Your task to perform on an android device: Open Google Maps and go to "Timeline" Image 0: 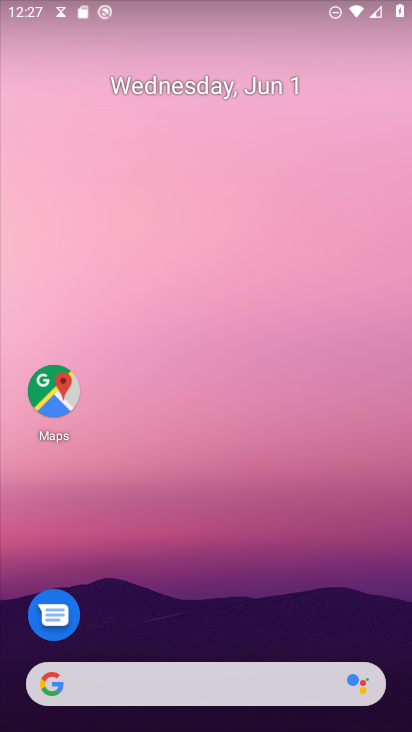
Step 0: drag from (259, 617) to (295, 16)
Your task to perform on an android device: Open Google Maps and go to "Timeline" Image 1: 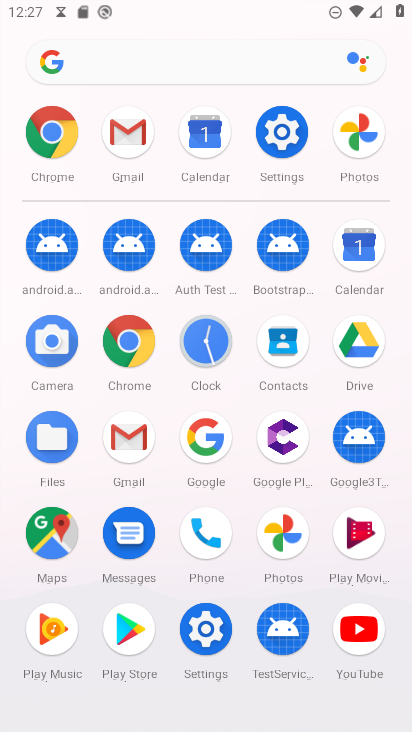
Step 1: click (60, 538)
Your task to perform on an android device: Open Google Maps and go to "Timeline" Image 2: 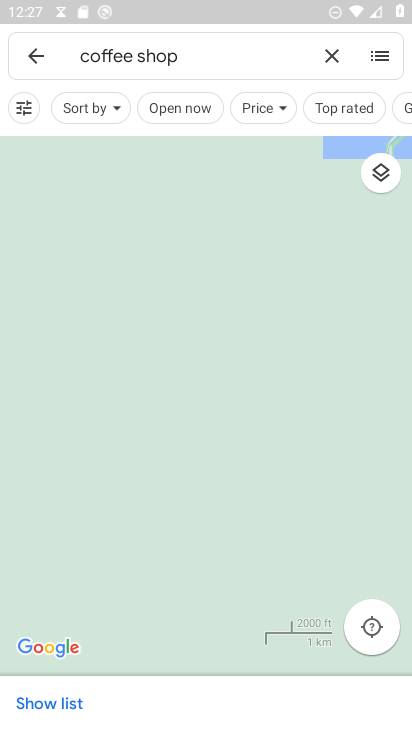
Step 2: click (385, 60)
Your task to perform on an android device: Open Google Maps and go to "Timeline" Image 3: 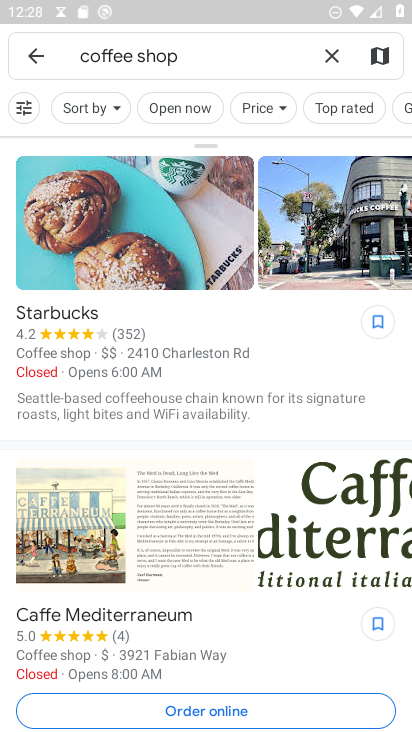
Step 3: click (339, 56)
Your task to perform on an android device: Open Google Maps and go to "Timeline" Image 4: 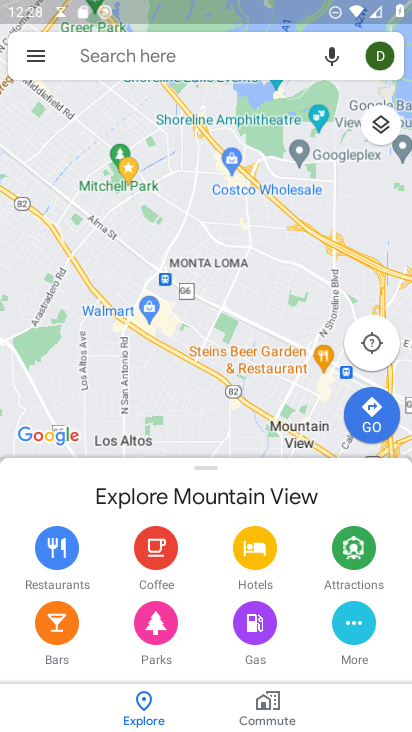
Step 4: click (36, 53)
Your task to perform on an android device: Open Google Maps and go to "Timeline" Image 5: 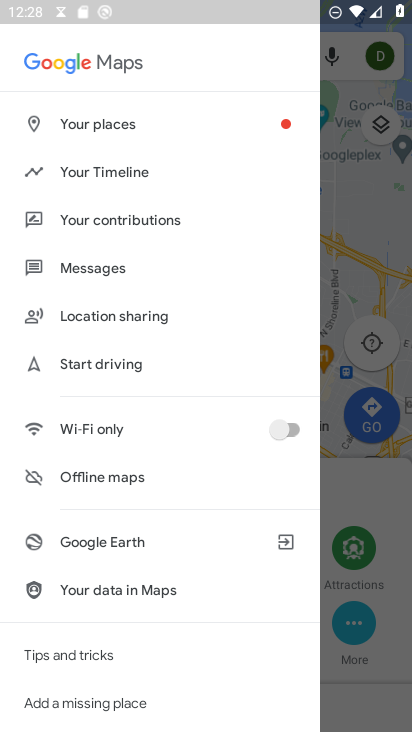
Step 5: click (120, 171)
Your task to perform on an android device: Open Google Maps and go to "Timeline" Image 6: 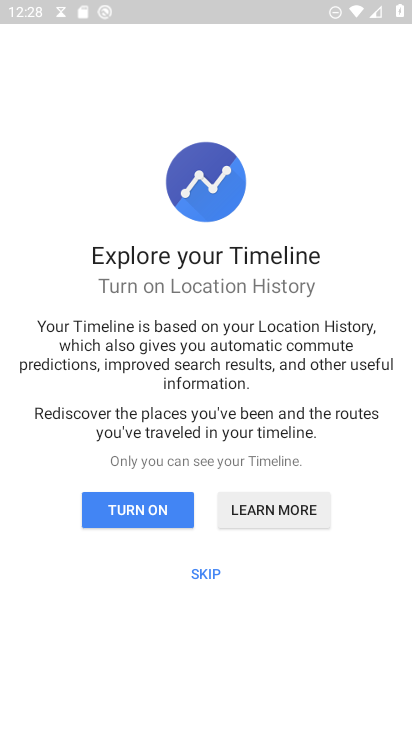
Step 6: click (199, 572)
Your task to perform on an android device: Open Google Maps and go to "Timeline" Image 7: 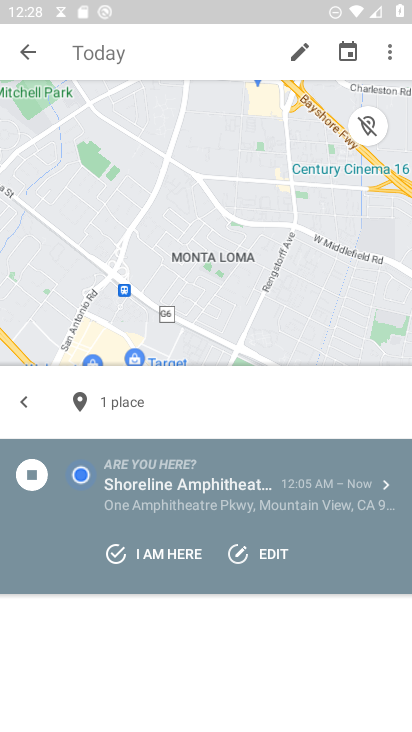
Step 7: click (33, 47)
Your task to perform on an android device: Open Google Maps and go to "Timeline" Image 8: 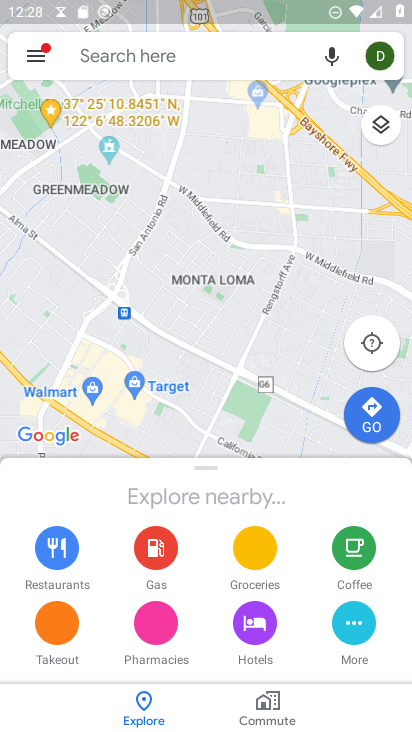
Step 8: click (34, 47)
Your task to perform on an android device: Open Google Maps and go to "Timeline" Image 9: 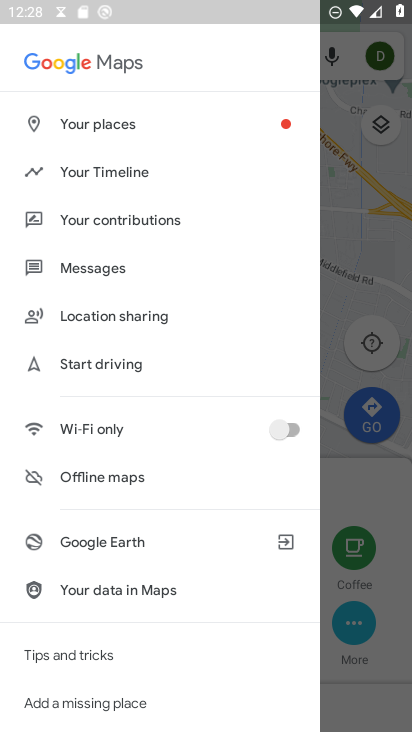
Step 9: click (133, 172)
Your task to perform on an android device: Open Google Maps and go to "Timeline" Image 10: 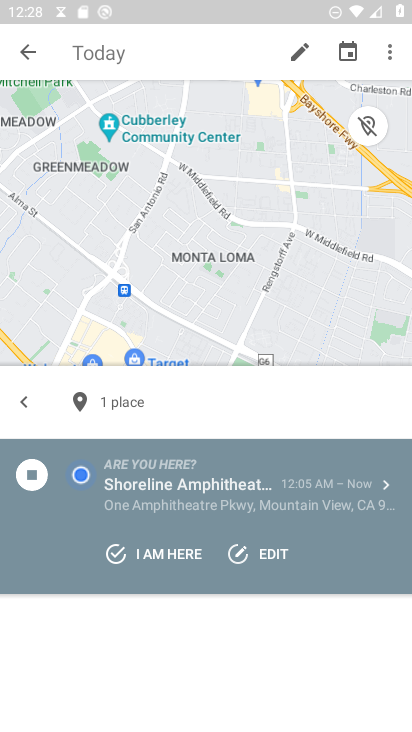
Step 10: task complete